Your task to perform on an android device: Go to Android settings Image 0: 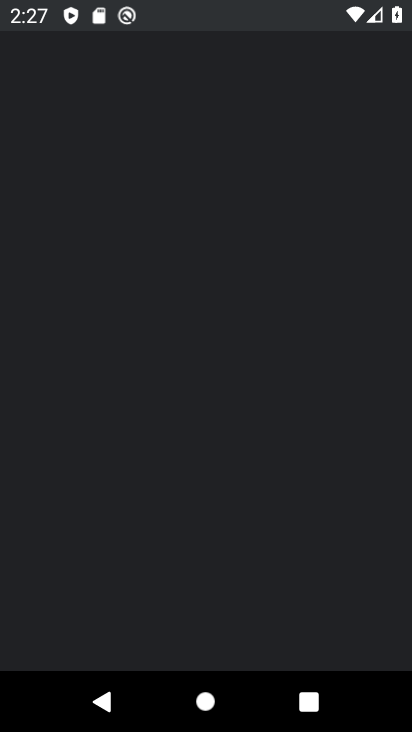
Step 0: press home button
Your task to perform on an android device: Go to Android settings Image 1: 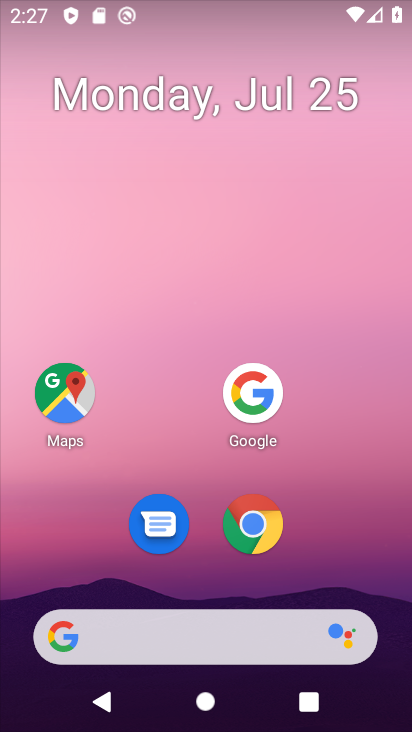
Step 1: drag from (195, 648) to (274, 215)
Your task to perform on an android device: Go to Android settings Image 2: 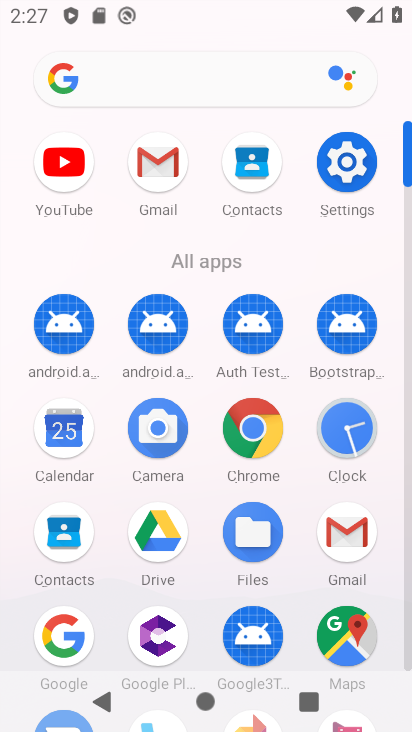
Step 2: click (350, 173)
Your task to perform on an android device: Go to Android settings Image 3: 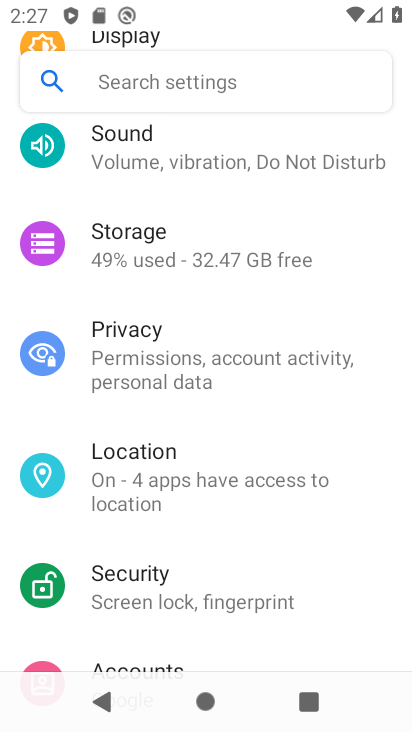
Step 3: drag from (205, 625) to (336, 127)
Your task to perform on an android device: Go to Android settings Image 4: 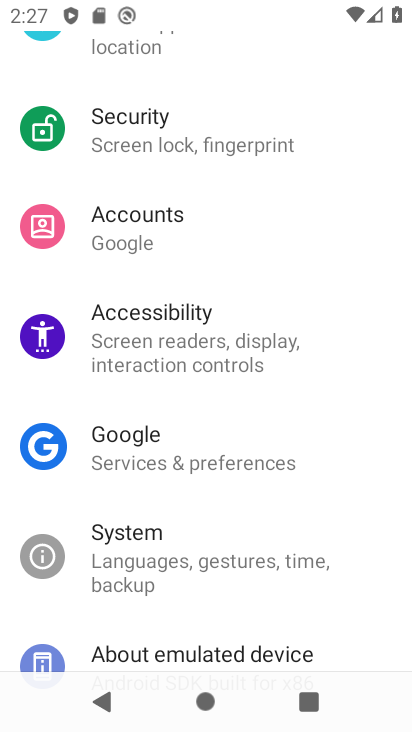
Step 4: drag from (207, 594) to (344, 93)
Your task to perform on an android device: Go to Android settings Image 5: 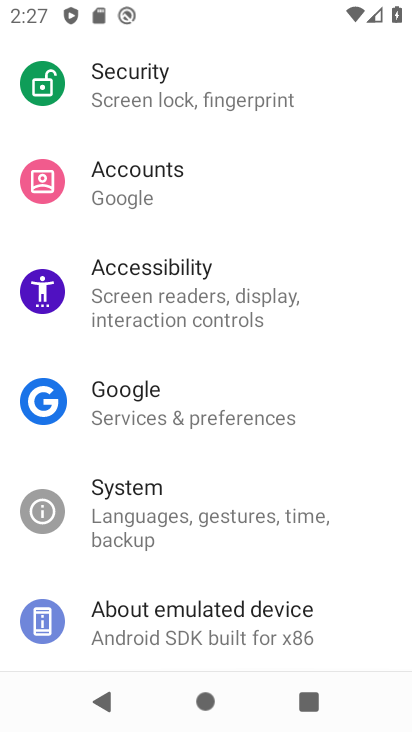
Step 5: click (192, 615)
Your task to perform on an android device: Go to Android settings Image 6: 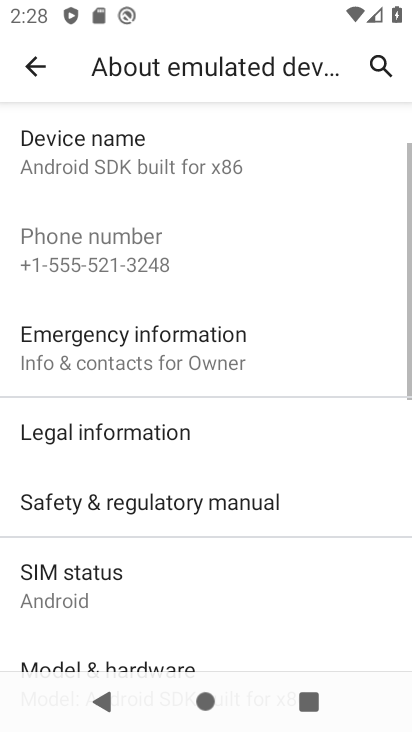
Step 6: drag from (215, 580) to (317, 160)
Your task to perform on an android device: Go to Android settings Image 7: 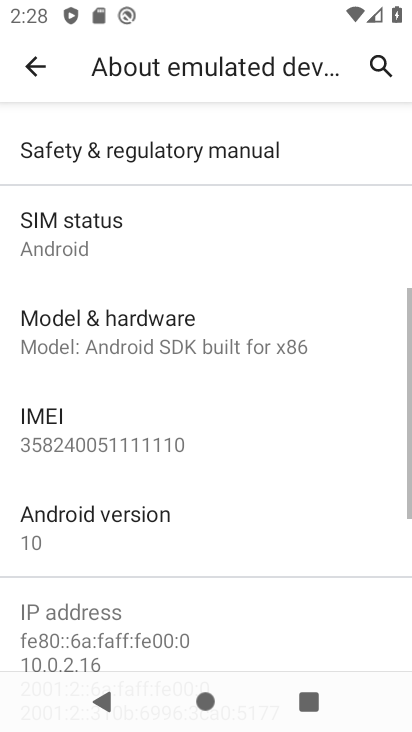
Step 7: click (111, 513)
Your task to perform on an android device: Go to Android settings Image 8: 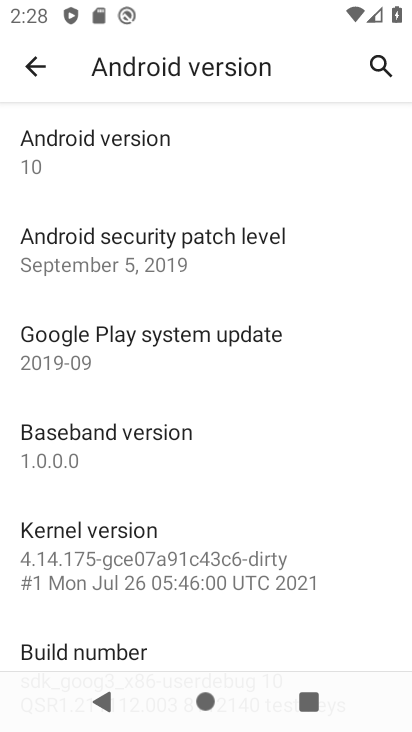
Step 8: task complete